Your task to perform on an android device: empty trash in the gmail app Image 0: 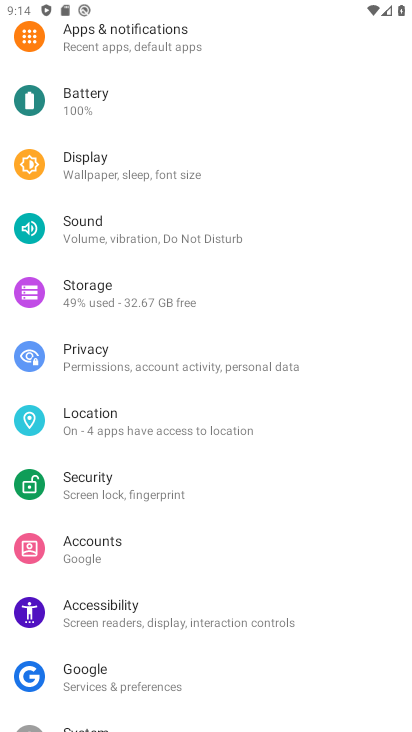
Step 0: press back button
Your task to perform on an android device: empty trash in the gmail app Image 1: 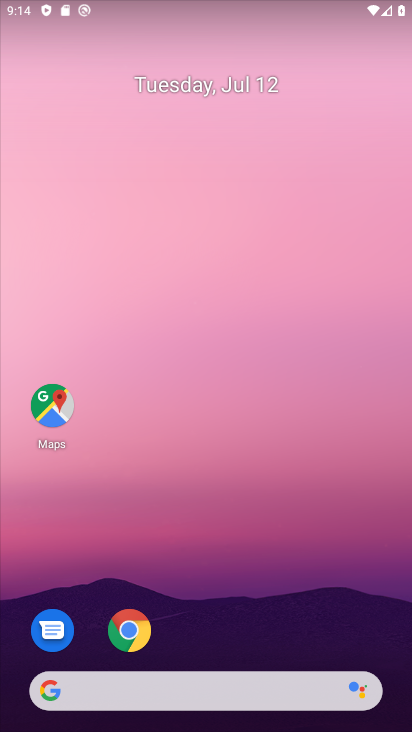
Step 1: drag from (206, 561) to (252, 50)
Your task to perform on an android device: empty trash in the gmail app Image 2: 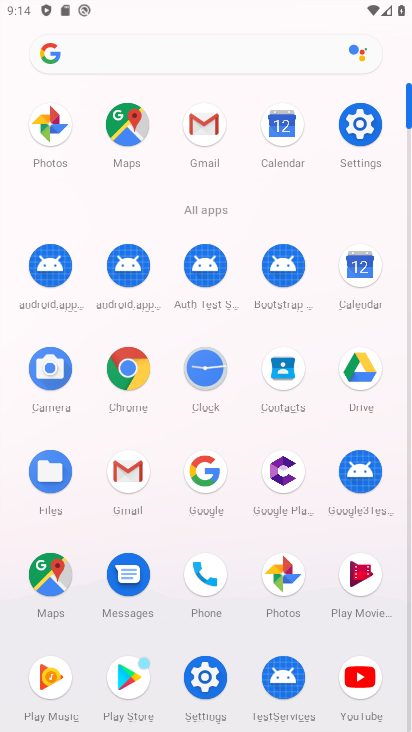
Step 2: click (210, 132)
Your task to perform on an android device: empty trash in the gmail app Image 3: 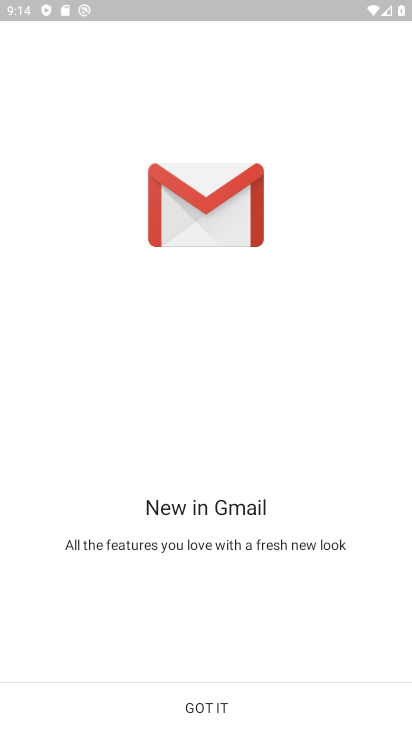
Step 3: click (206, 697)
Your task to perform on an android device: empty trash in the gmail app Image 4: 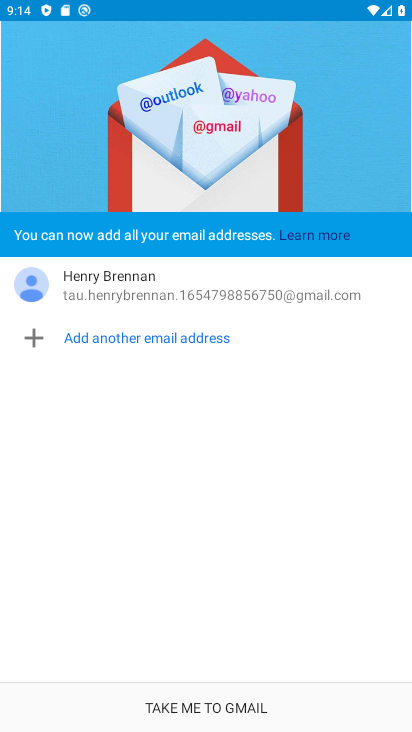
Step 4: click (198, 704)
Your task to perform on an android device: empty trash in the gmail app Image 5: 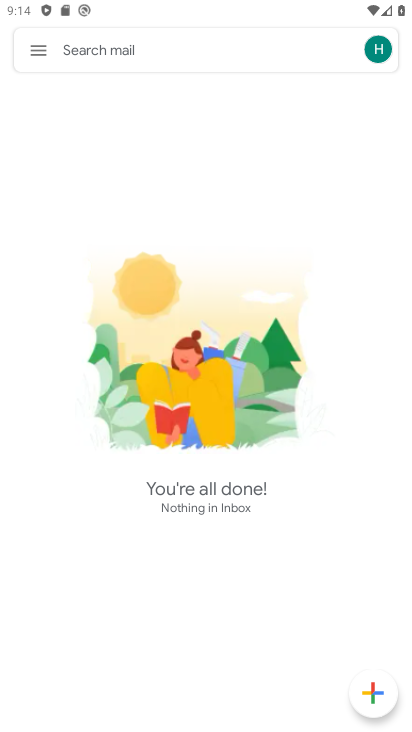
Step 5: click (39, 47)
Your task to perform on an android device: empty trash in the gmail app Image 6: 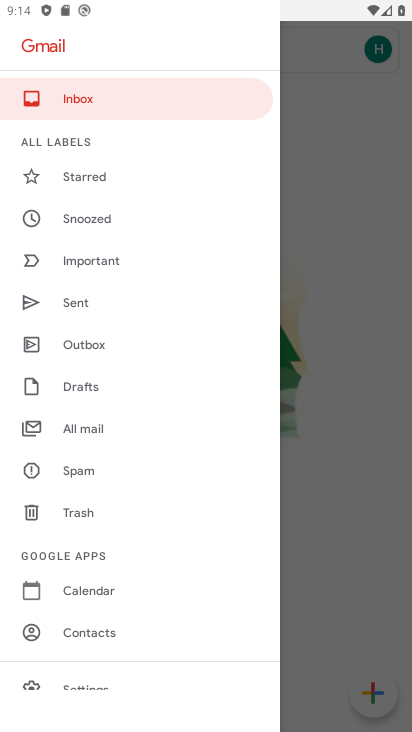
Step 6: click (76, 513)
Your task to perform on an android device: empty trash in the gmail app Image 7: 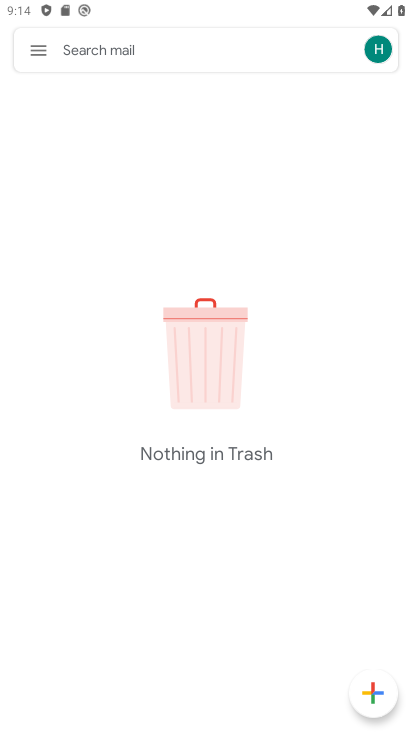
Step 7: task complete